Your task to perform on an android device: make emails show in primary in the gmail app Image 0: 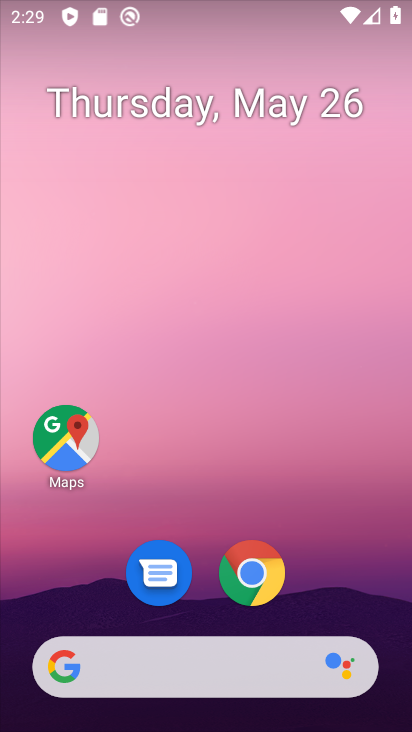
Step 0: drag from (331, 578) to (288, 84)
Your task to perform on an android device: make emails show in primary in the gmail app Image 1: 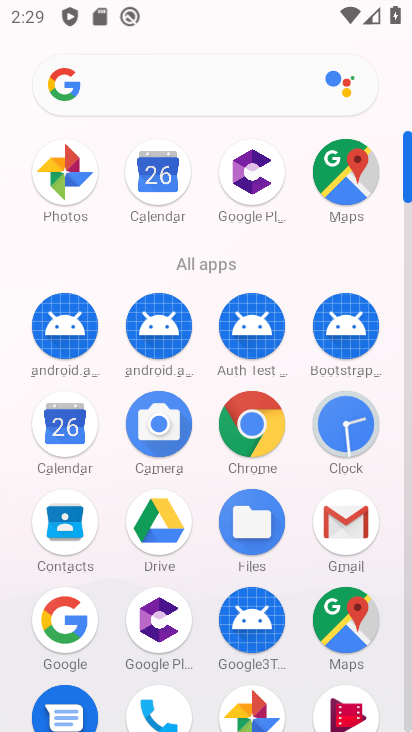
Step 1: click (343, 520)
Your task to perform on an android device: make emails show in primary in the gmail app Image 2: 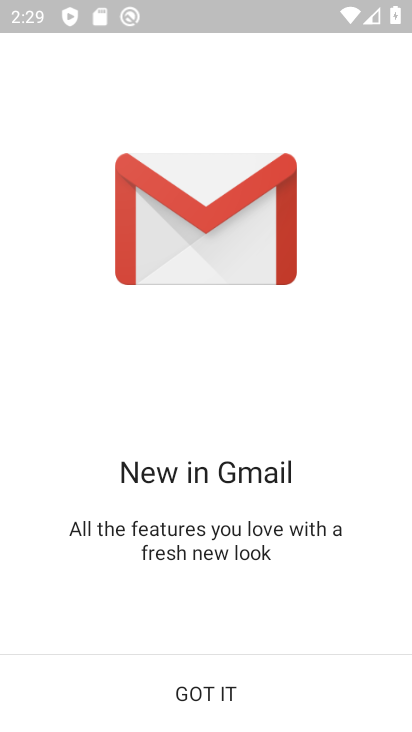
Step 2: click (203, 692)
Your task to perform on an android device: make emails show in primary in the gmail app Image 3: 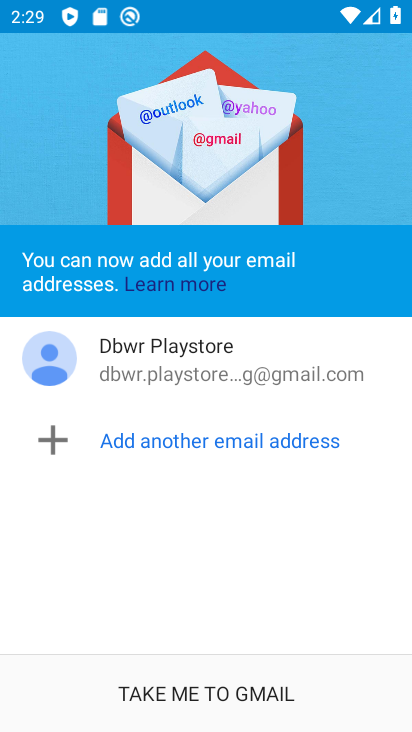
Step 3: click (203, 692)
Your task to perform on an android device: make emails show in primary in the gmail app Image 4: 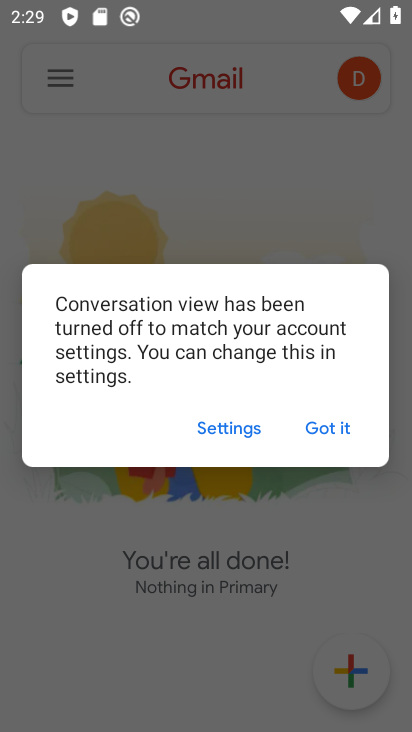
Step 4: click (335, 418)
Your task to perform on an android device: make emails show in primary in the gmail app Image 5: 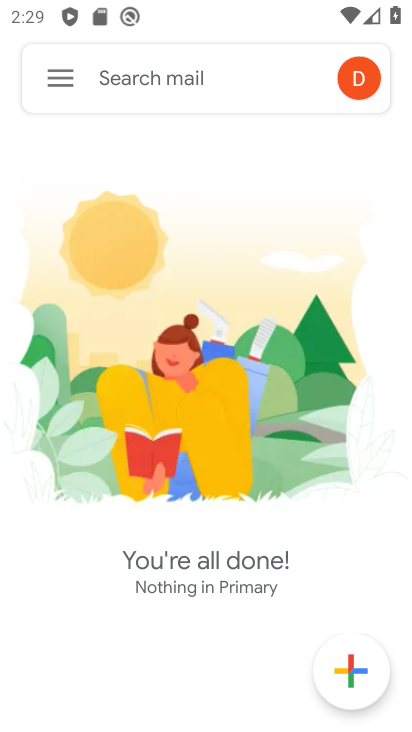
Step 5: click (55, 78)
Your task to perform on an android device: make emails show in primary in the gmail app Image 6: 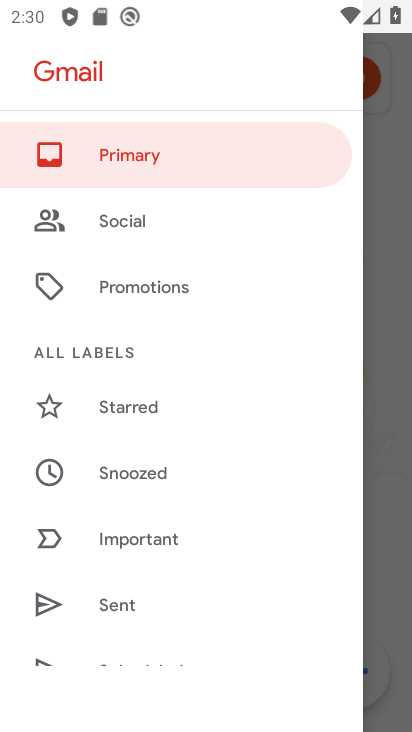
Step 6: click (250, 162)
Your task to perform on an android device: make emails show in primary in the gmail app Image 7: 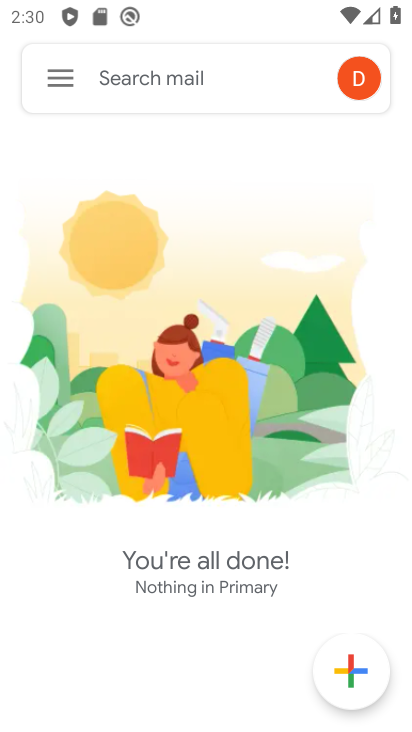
Step 7: task complete